Your task to perform on an android device: Show me the alarms in the clock app Image 0: 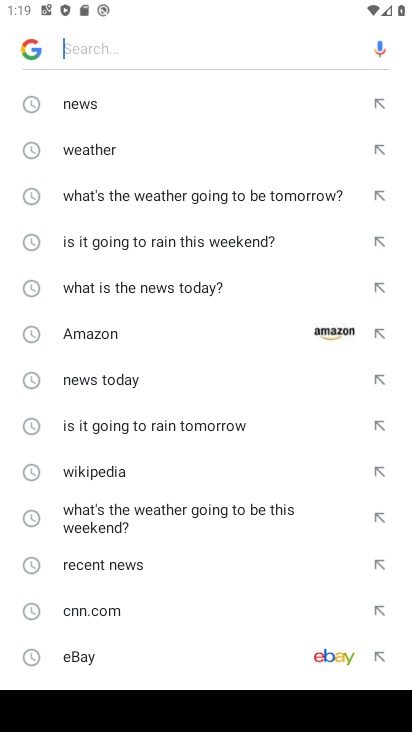
Step 0: press home button
Your task to perform on an android device: Show me the alarms in the clock app Image 1: 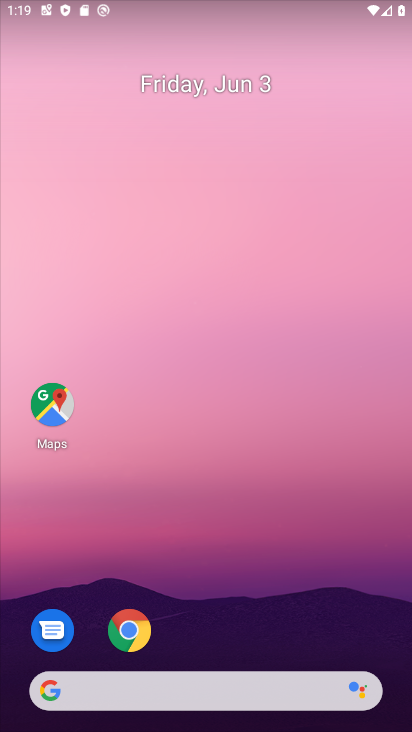
Step 1: drag from (256, 719) to (257, 210)
Your task to perform on an android device: Show me the alarms in the clock app Image 2: 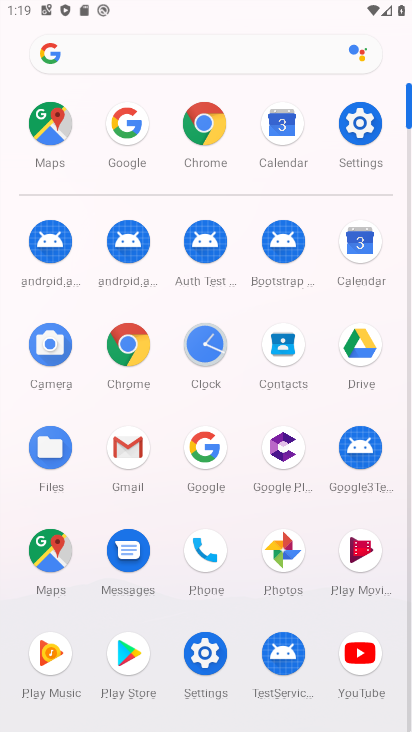
Step 2: click (216, 344)
Your task to perform on an android device: Show me the alarms in the clock app Image 3: 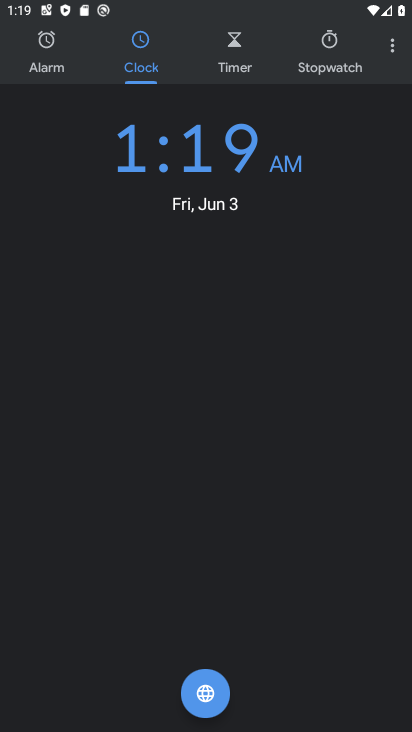
Step 3: click (44, 49)
Your task to perform on an android device: Show me the alarms in the clock app Image 4: 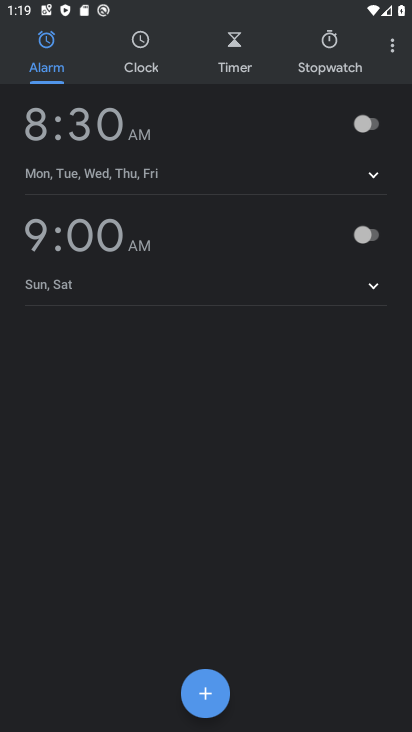
Step 4: task complete